Your task to perform on an android device: see creations saved in the google photos Image 0: 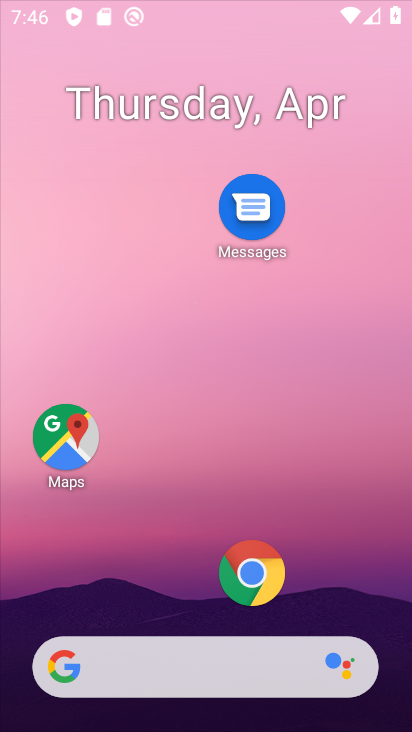
Step 0: drag from (200, 609) to (221, 19)
Your task to perform on an android device: see creations saved in the google photos Image 1: 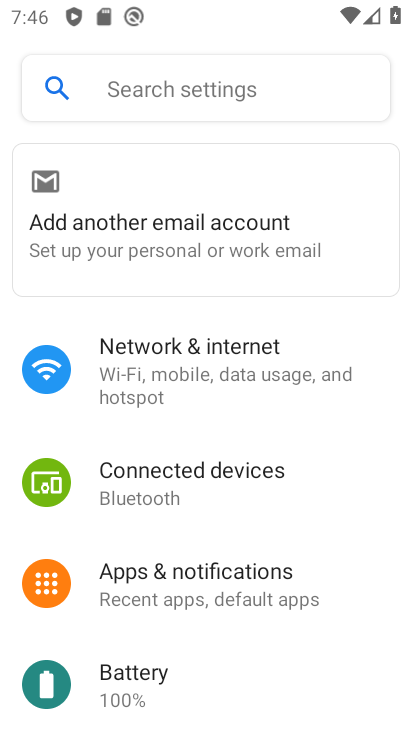
Step 1: press home button
Your task to perform on an android device: see creations saved in the google photos Image 2: 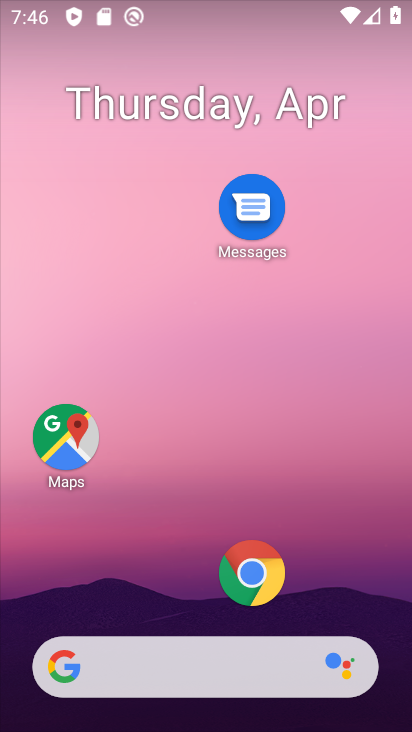
Step 2: drag from (190, 613) to (183, 127)
Your task to perform on an android device: see creations saved in the google photos Image 3: 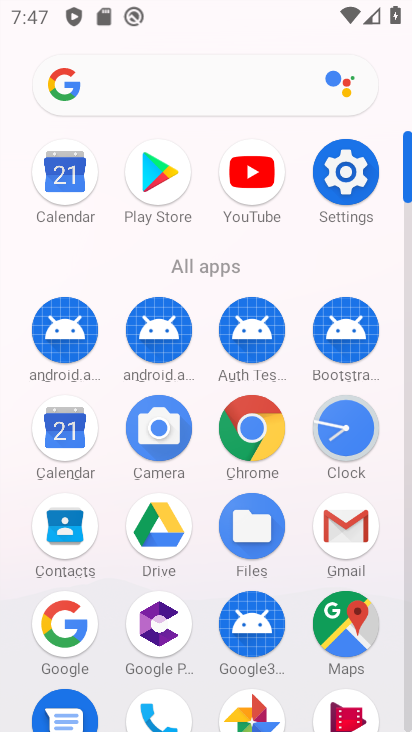
Step 3: click (254, 700)
Your task to perform on an android device: see creations saved in the google photos Image 4: 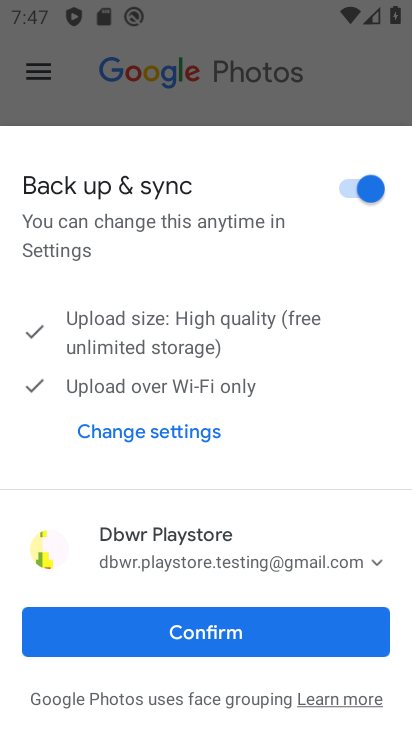
Step 4: click (207, 631)
Your task to perform on an android device: see creations saved in the google photos Image 5: 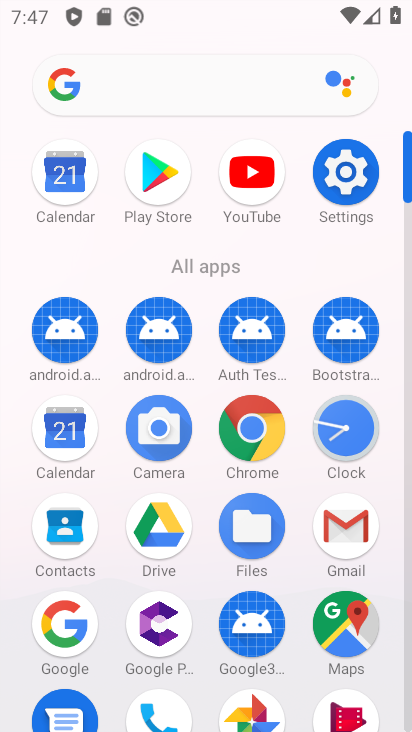
Step 5: click (251, 698)
Your task to perform on an android device: see creations saved in the google photos Image 6: 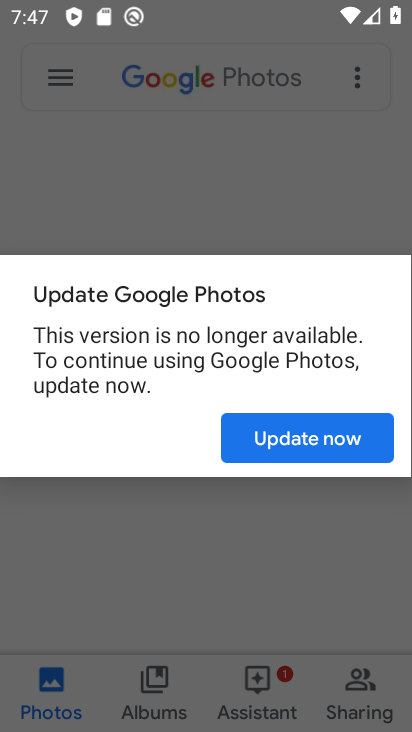
Step 6: click (313, 442)
Your task to perform on an android device: see creations saved in the google photos Image 7: 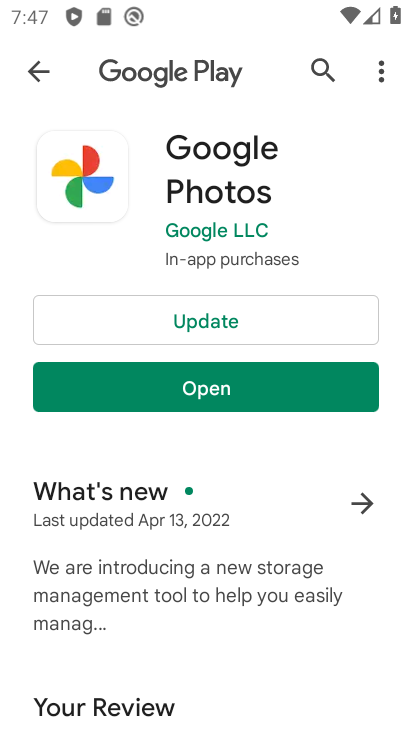
Step 7: click (211, 393)
Your task to perform on an android device: see creations saved in the google photos Image 8: 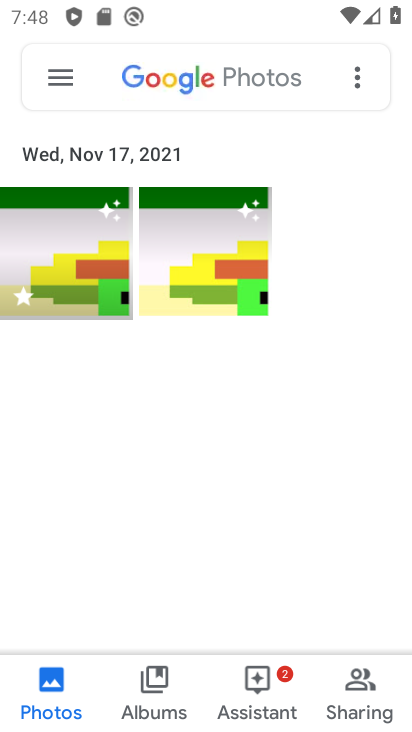
Step 8: click (170, 78)
Your task to perform on an android device: see creations saved in the google photos Image 9: 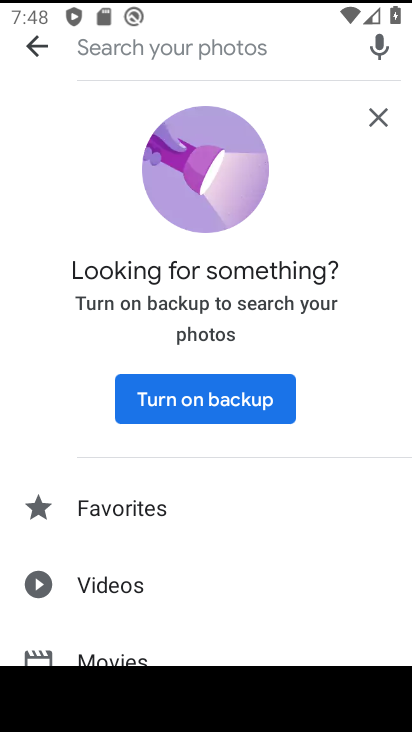
Step 9: drag from (155, 591) to (174, 114)
Your task to perform on an android device: see creations saved in the google photos Image 10: 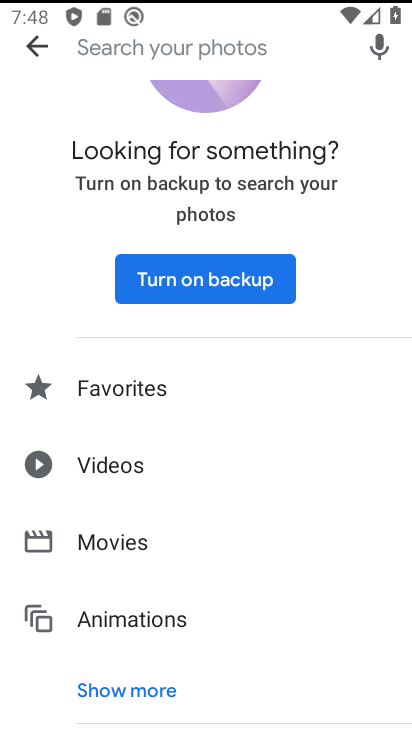
Step 10: click (126, 695)
Your task to perform on an android device: see creations saved in the google photos Image 11: 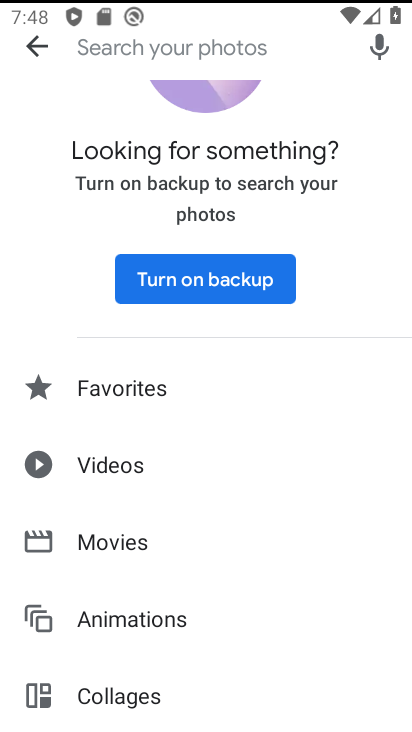
Step 11: drag from (146, 684) to (168, 184)
Your task to perform on an android device: see creations saved in the google photos Image 12: 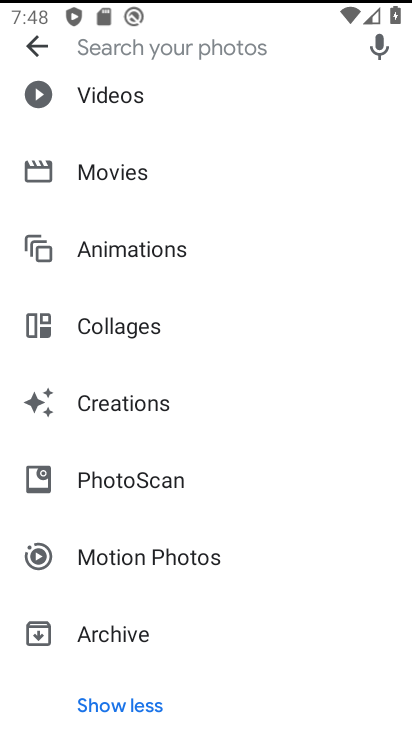
Step 12: click (180, 402)
Your task to perform on an android device: see creations saved in the google photos Image 13: 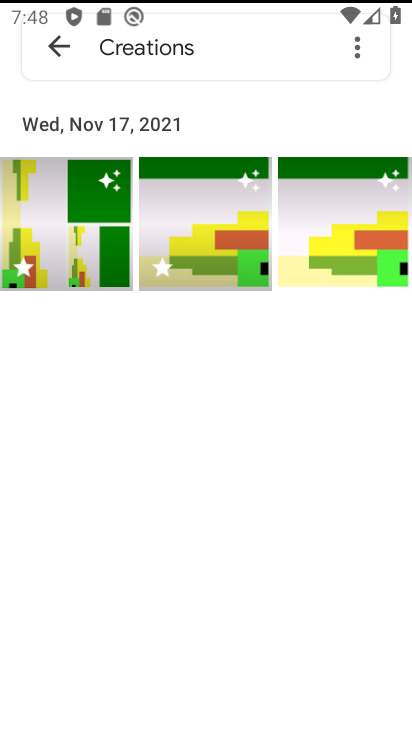
Step 13: task complete